Your task to perform on an android device: Open ESPN.com Image 0: 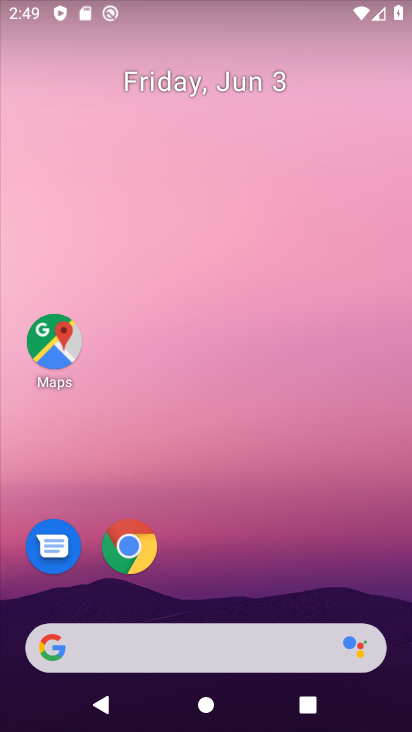
Step 0: drag from (362, 572) to (286, 40)
Your task to perform on an android device: Open ESPN.com Image 1: 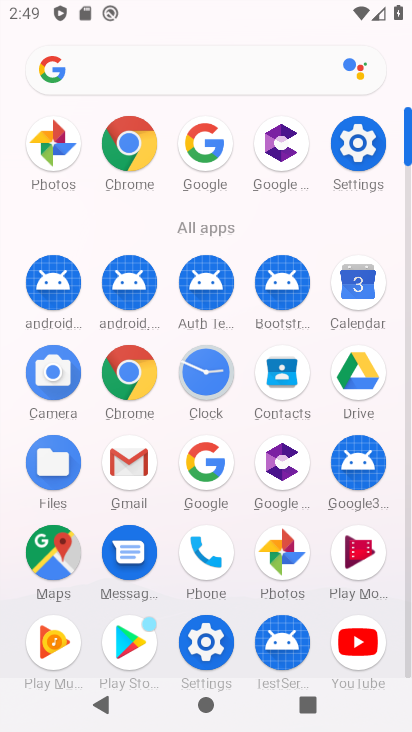
Step 1: click (122, 378)
Your task to perform on an android device: Open ESPN.com Image 2: 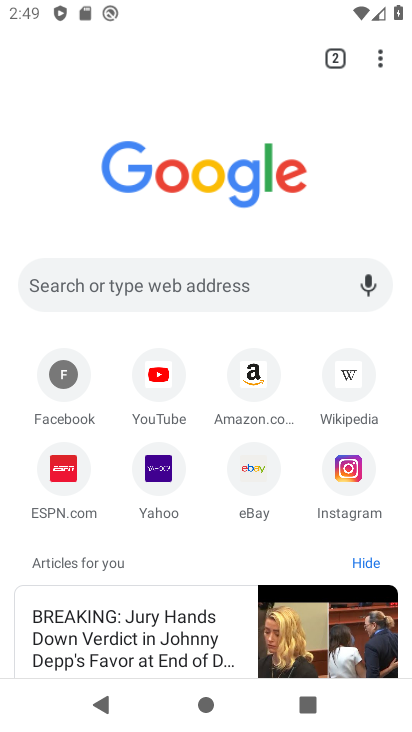
Step 2: click (235, 289)
Your task to perform on an android device: Open ESPN.com Image 3: 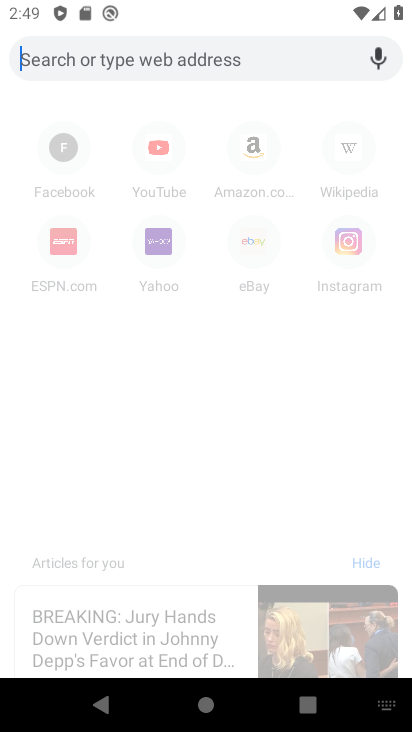
Step 3: click (70, 276)
Your task to perform on an android device: Open ESPN.com Image 4: 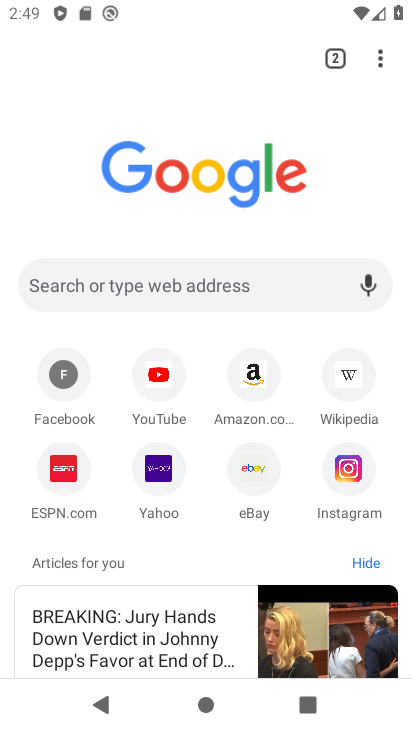
Step 4: click (58, 506)
Your task to perform on an android device: Open ESPN.com Image 5: 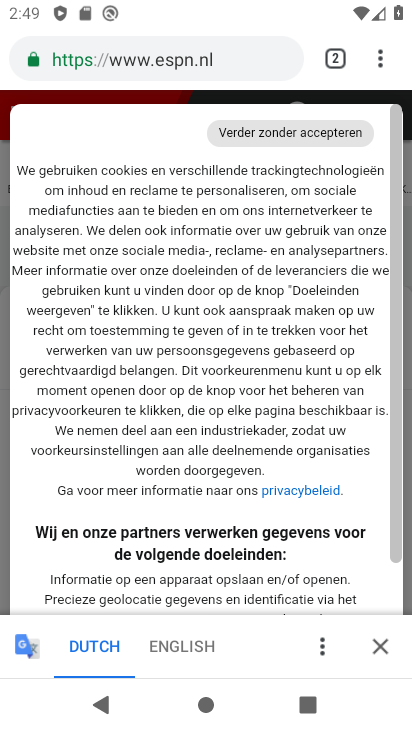
Step 5: task complete